Your task to perform on an android device: Turn on the flashlight Image 0: 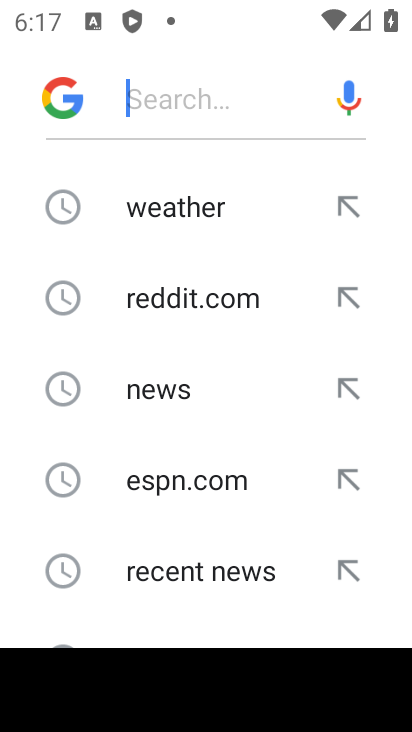
Step 0: press home button
Your task to perform on an android device: Turn on the flashlight Image 1: 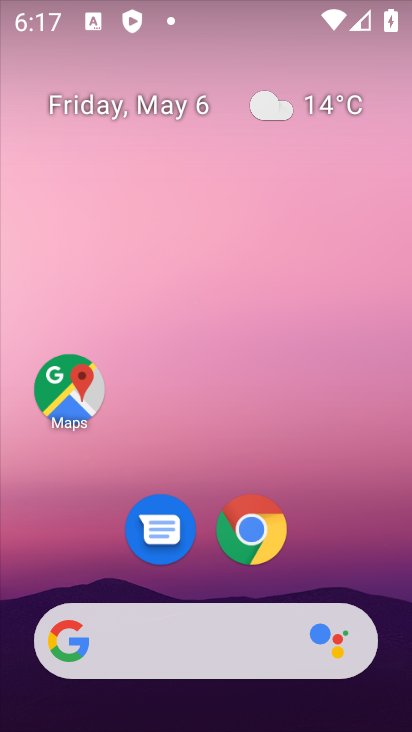
Step 1: task complete